Your task to perform on an android device: turn smart compose on in the gmail app Image 0: 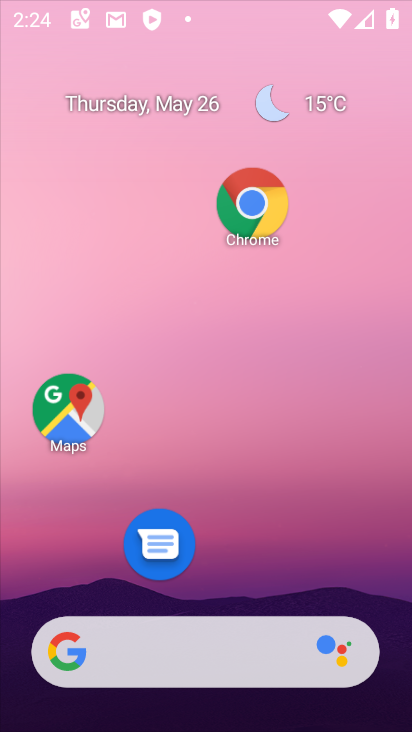
Step 0: click (265, 58)
Your task to perform on an android device: turn smart compose on in the gmail app Image 1: 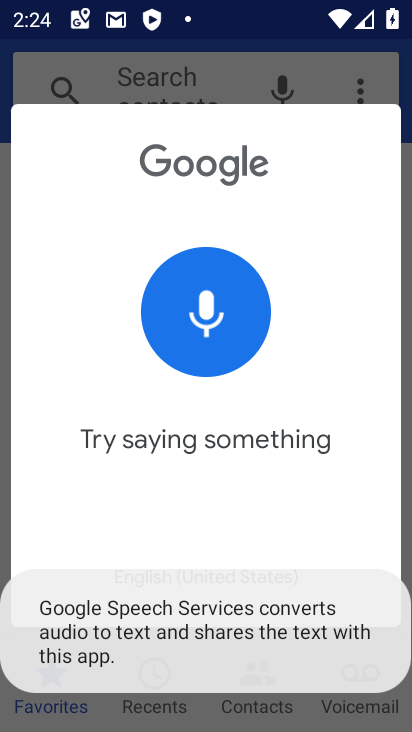
Step 1: press home button
Your task to perform on an android device: turn smart compose on in the gmail app Image 2: 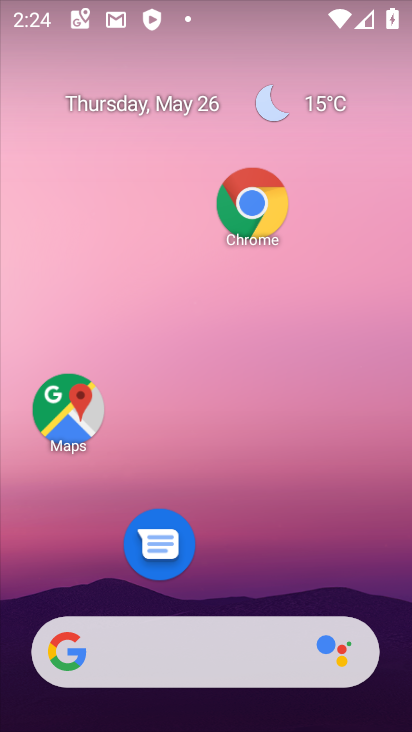
Step 2: drag from (206, 691) to (235, 3)
Your task to perform on an android device: turn smart compose on in the gmail app Image 3: 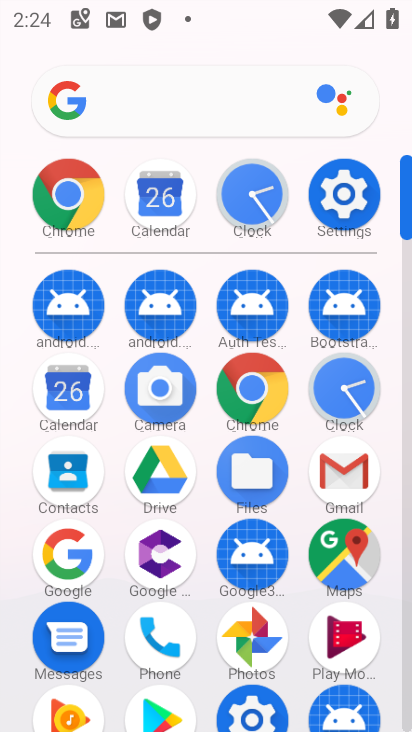
Step 3: click (332, 449)
Your task to perform on an android device: turn smart compose on in the gmail app Image 4: 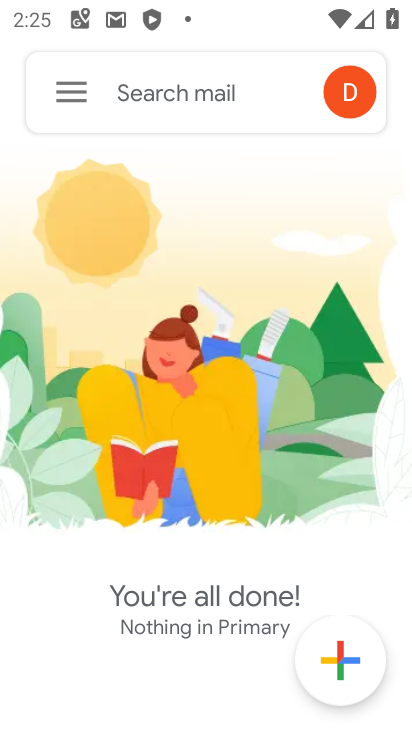
Step 4: click (71, 82)
Your task to perform on an android device: turn smart compose on in the gmail app Image 5: 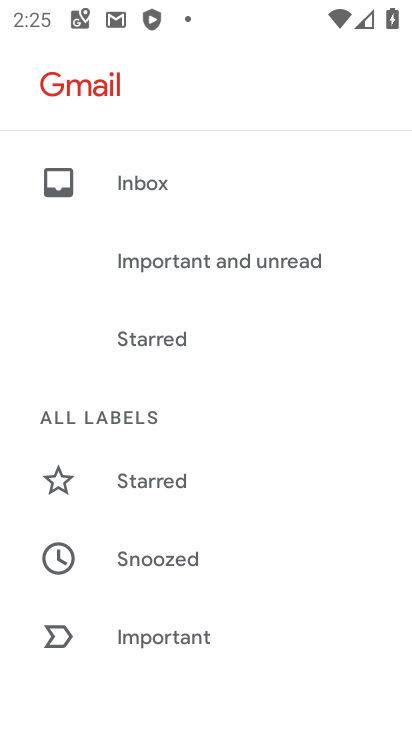
Step 5: drag from (117, 488) to (207, 16)
Your task to perform on an android device: turn smart compose on in the gmail app Image 6: 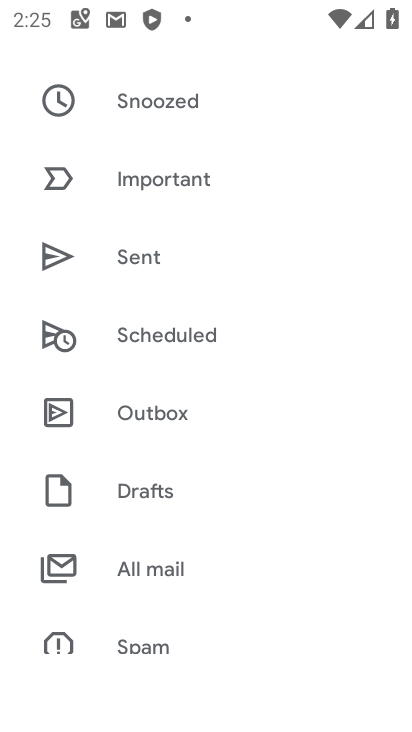
Step 6: drag from (174, 618) to (229, 6)
Your task to perform on an android device: turn smart compose on in the gmail app Image 7: 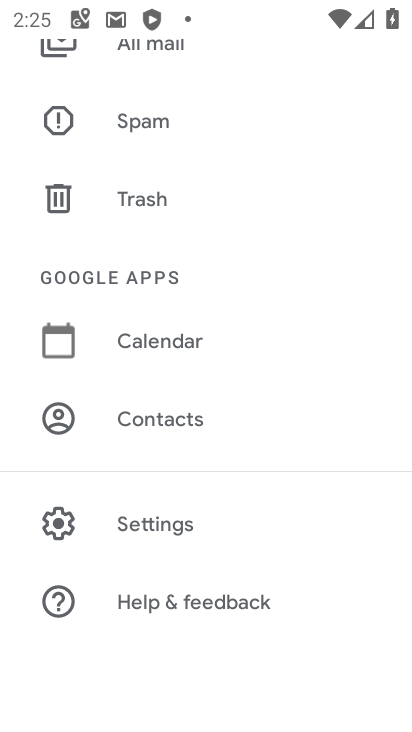
Step 7: click (183, 525)
Your task to perform on an android device: turn smart compose on in the gmail app Image 8: 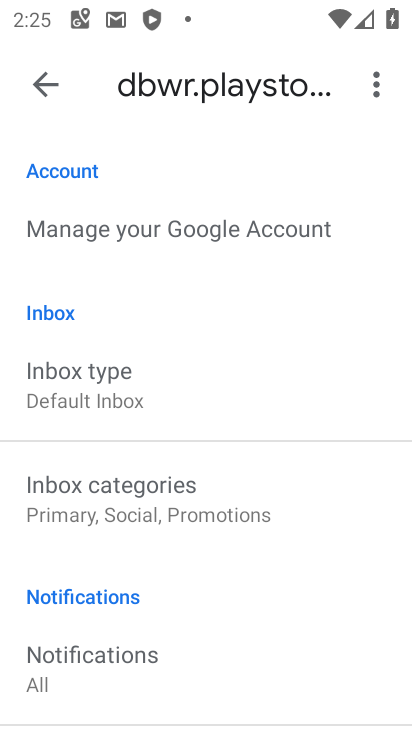
Step 8: task complete